Your task to perform on an android device: uninstall "Microsoft Outlook" Image 0: 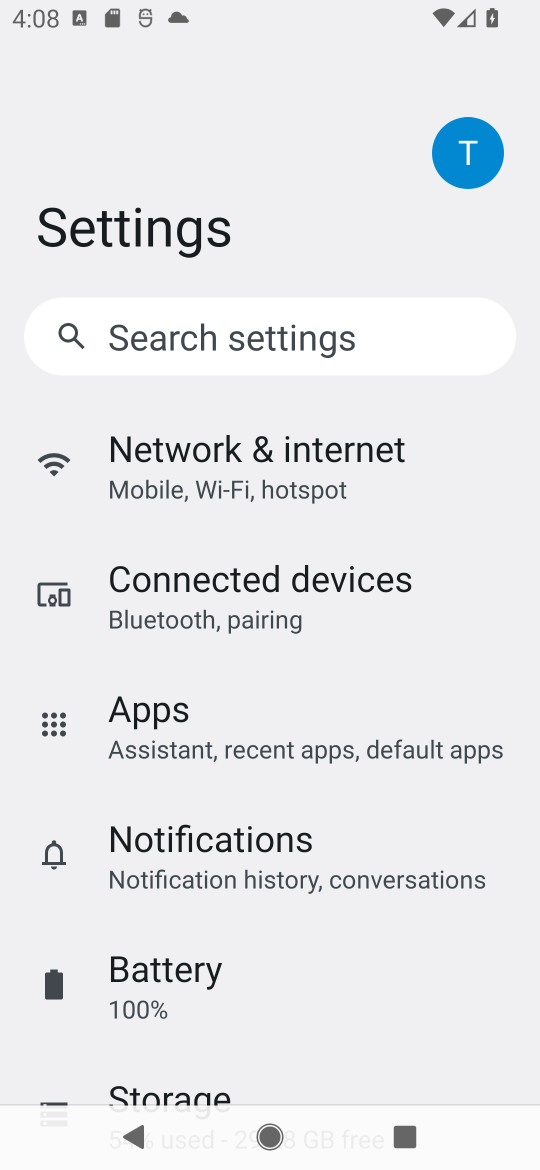
Step 0: press home button
Your task to perform on an android device: uninstall "Microsoft Outlook" Image 1: 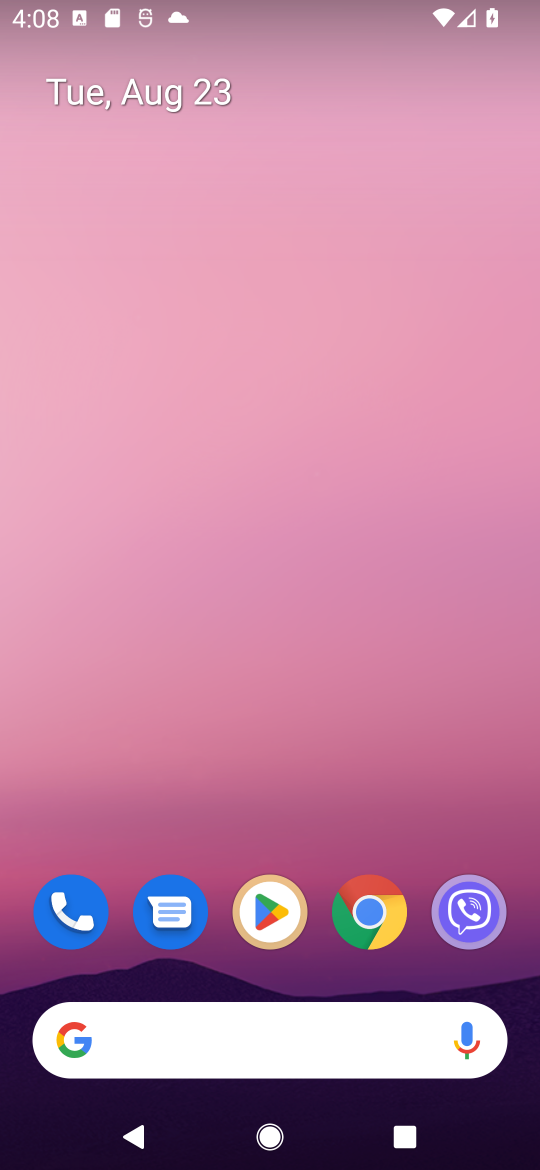
Step 1: drag from (195, 992) to (269, 13)
Your task to perform on an android device: uninstall "Microsoft Outlook" Image 2: 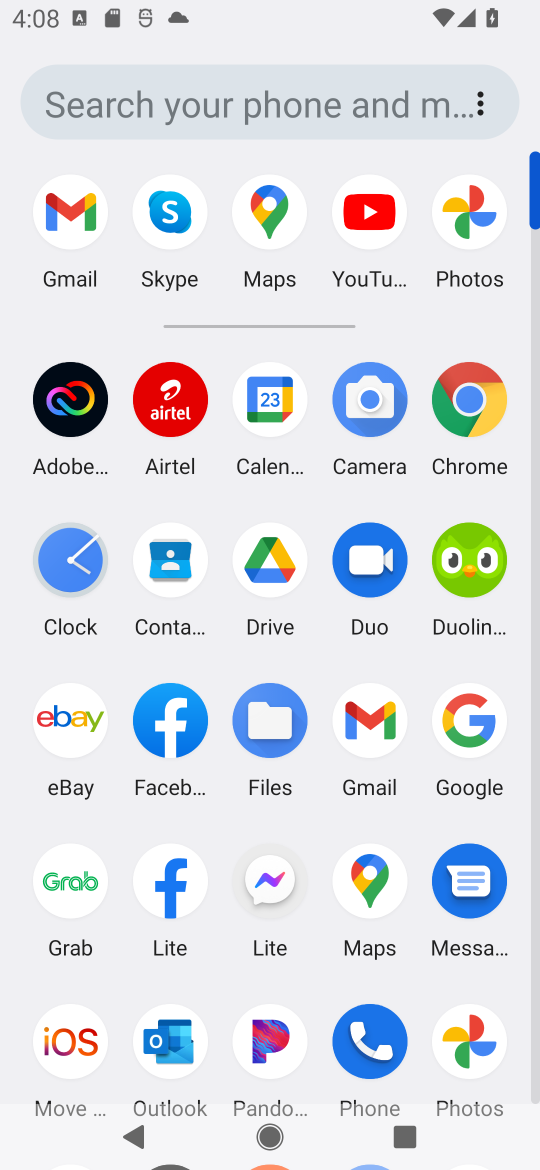
Step 2: drag from (317, 917) to (307, 383)
Your task to perform on an android device: uninstall "Microsoft Outlook" Image 3: 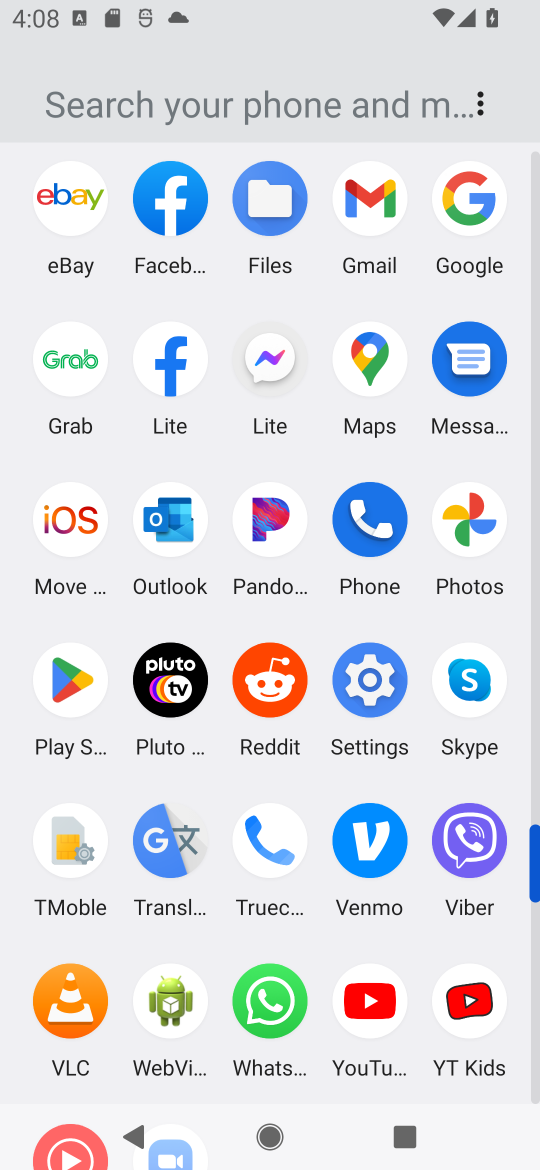
Step 3: click (71, 688)
Your task to perform on an android device: uninstall "Microsoft Outlook" Image 4: 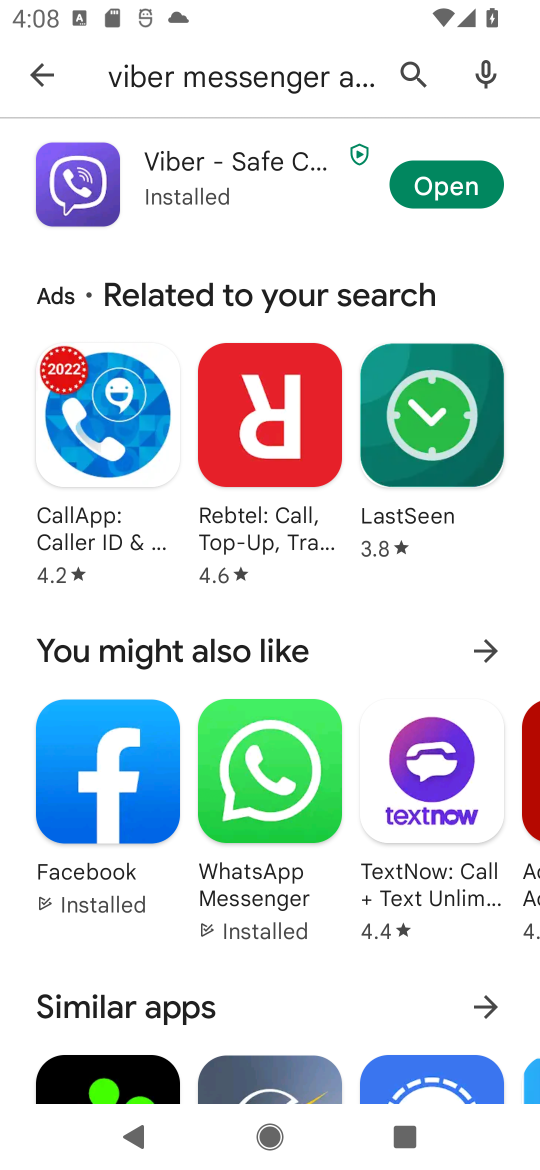
Step 4: press back button
Your task to perform on an android device: uninstall "Microsoft Outlook" Image 5: 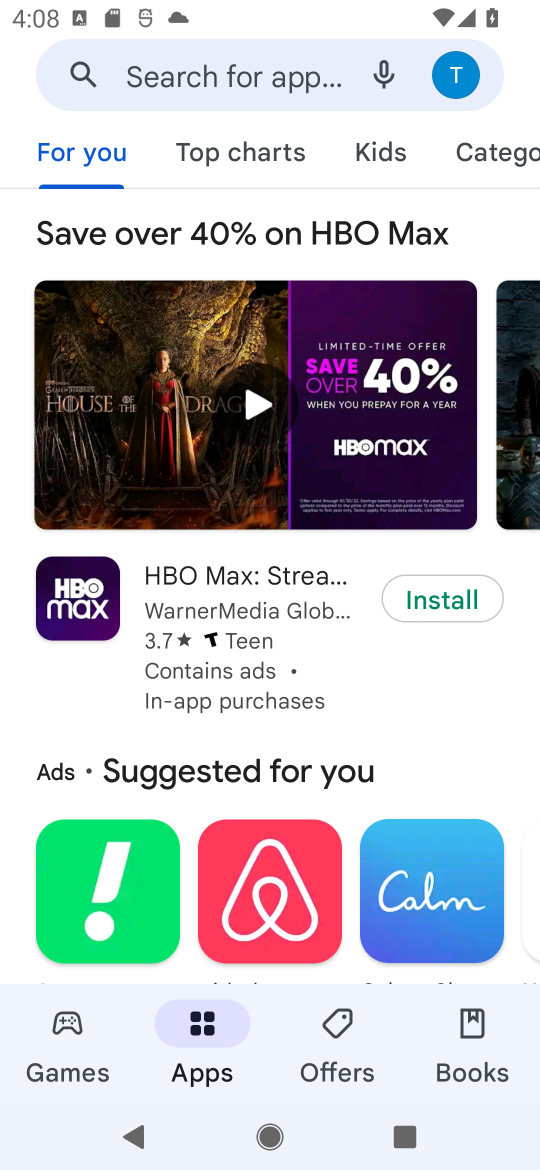
Step 5: click (282, 87)
Your task to perform on an android device: uninstall "Microsoft Outlook" Image 6: 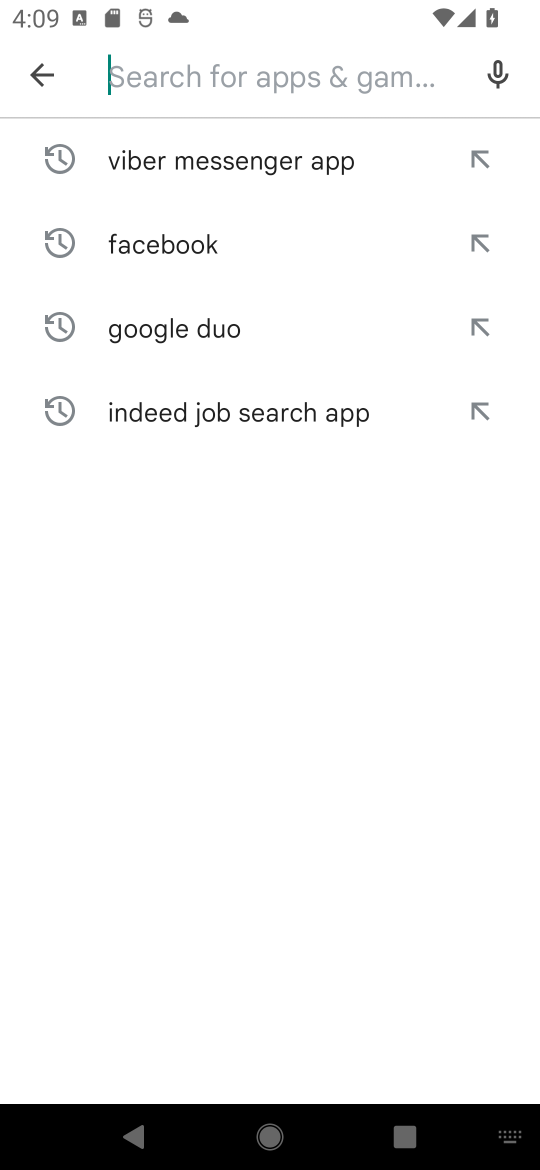
Step 6: type "Microsoft Outlook"
Your task to perform on an android device: uninstall "Microsoft Outlook" Image 7: 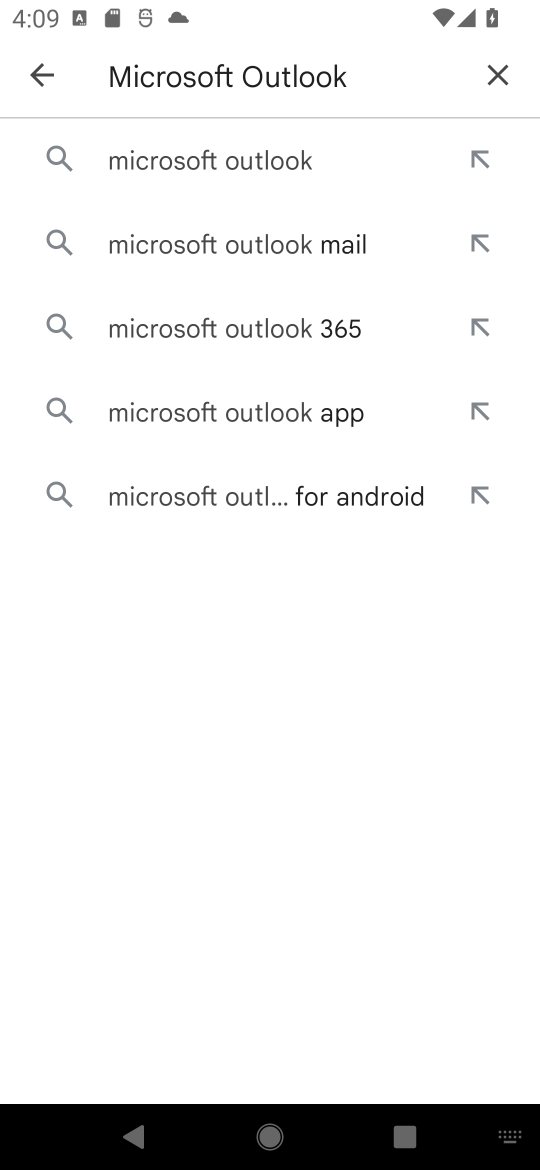
Step 7: click (221, 167)
Your task to perform on an android device: uninstall "Microsoft Outlook" Image 8: 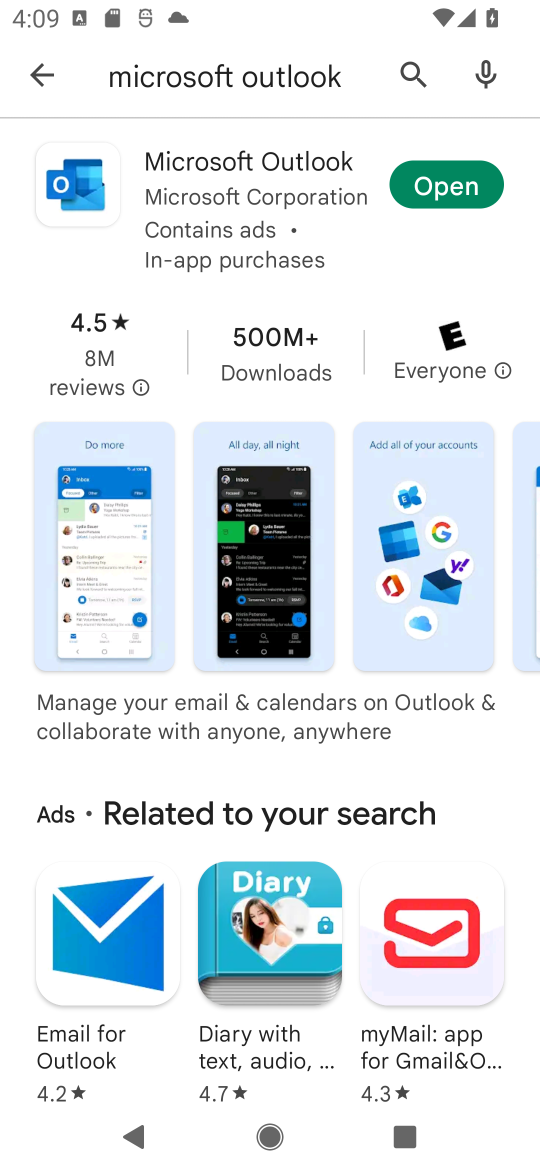
Step 8: click (211, 166)
Your task to perform on an android device: uninstall "Microsoft Outlook" Image 9: 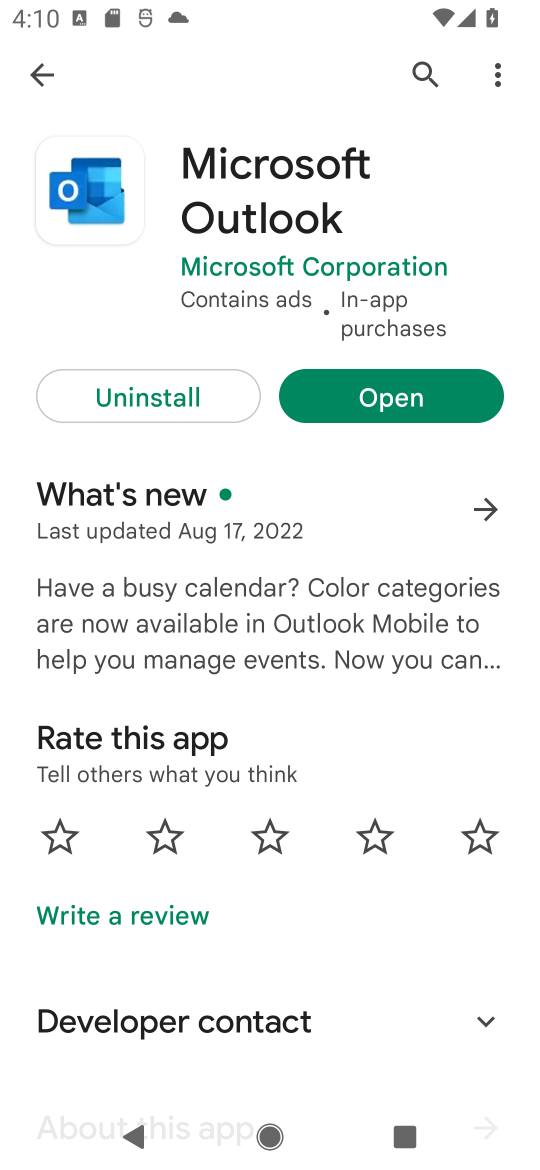
Step 9: click (154, 408)
Your task to perform on an android device: uninstall "Microsoft Outlook" Image 10: 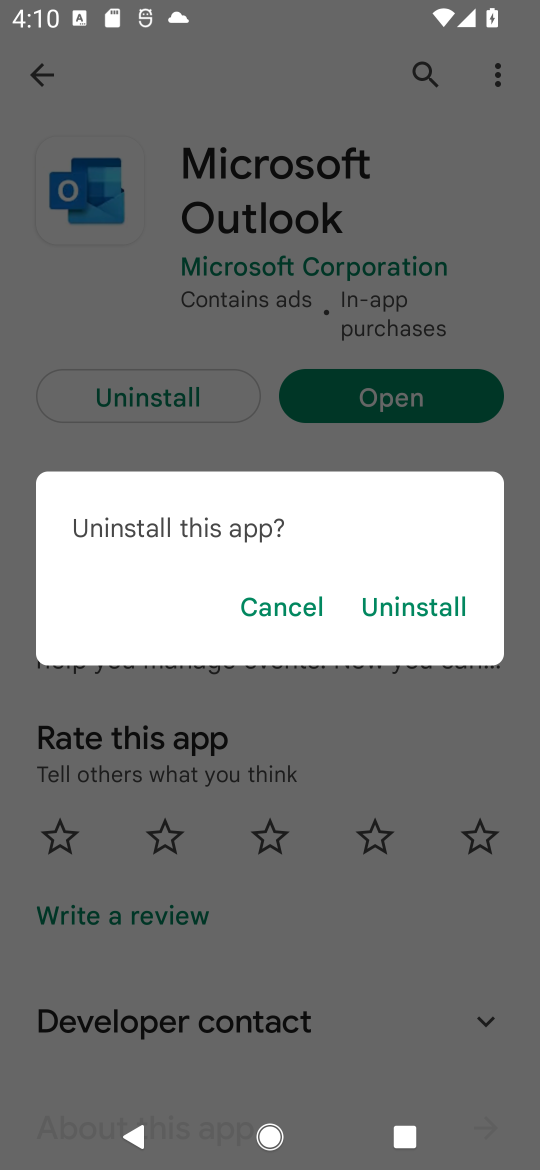
Step 10: click (408, 602)
Your task to perform on an android device: uninstall "Microsoft Outlook" Image 11: 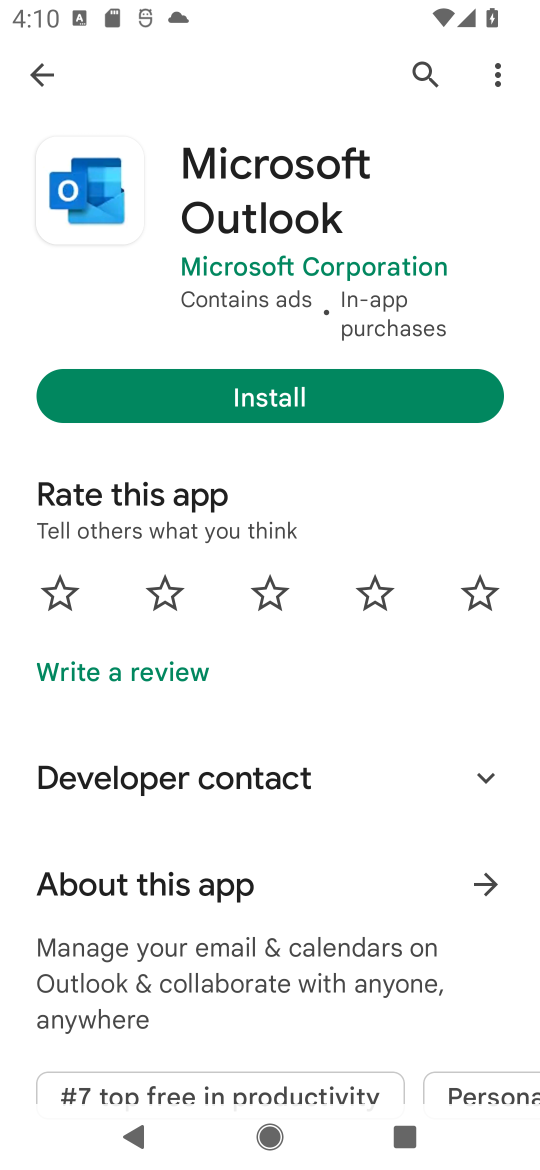
Step 11: task complete